Your task to perform on an android device: turn off notifications in google photos Image 0: 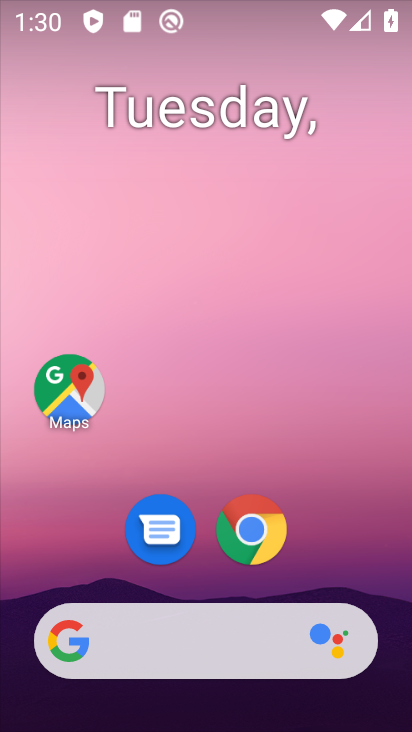
Step 0: drag from (383, 593) to (308, 61)
Your task to perform on an android device: turn off notifications in google photos Image 1: 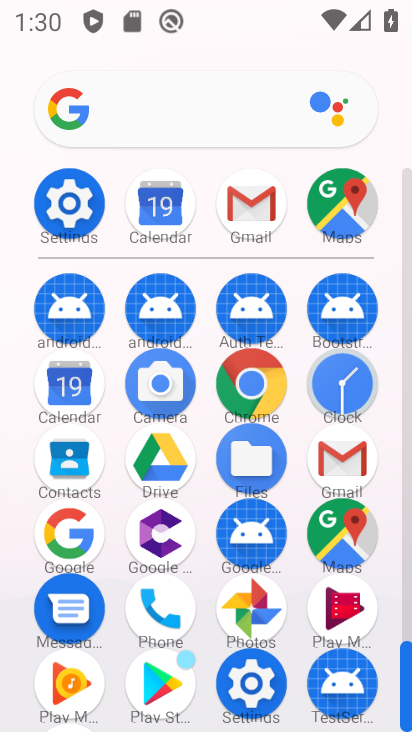
Step 1: click (255, 610)
Your task to perform on an android device: turn off notifications in google photos Image 2: 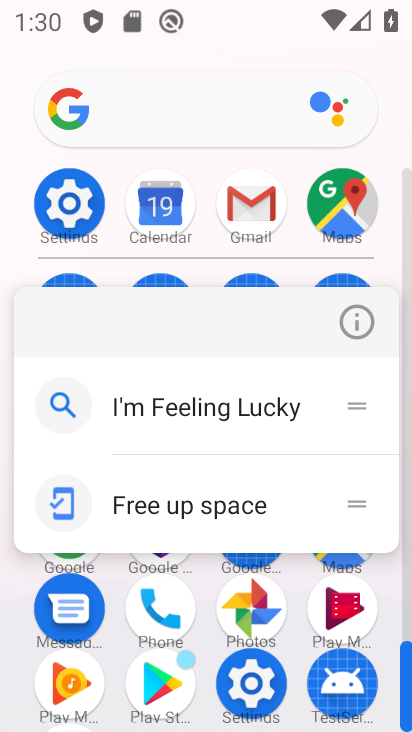
Step 2: click (257, 600)
Your task to perform on an android device: turn off notifications in google photos Image 3: 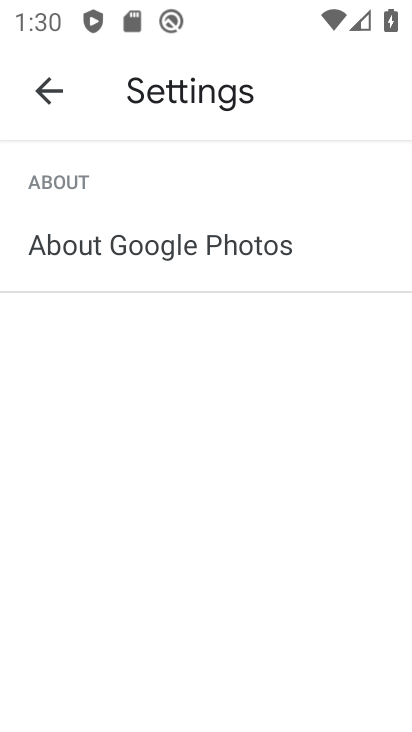
Step 3: click (51, 88)
Your task to perform on an android device: turn off notifications in google photos Image 4: 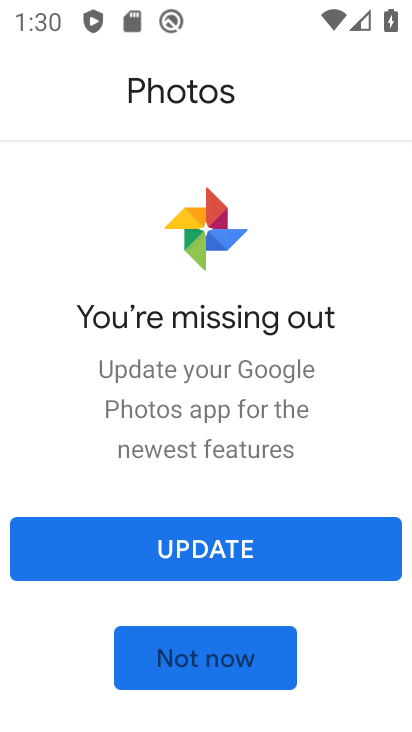
Step 4: click (188, 528)
Your task to perform on an android device: turn off notifications in google photos Image 5: 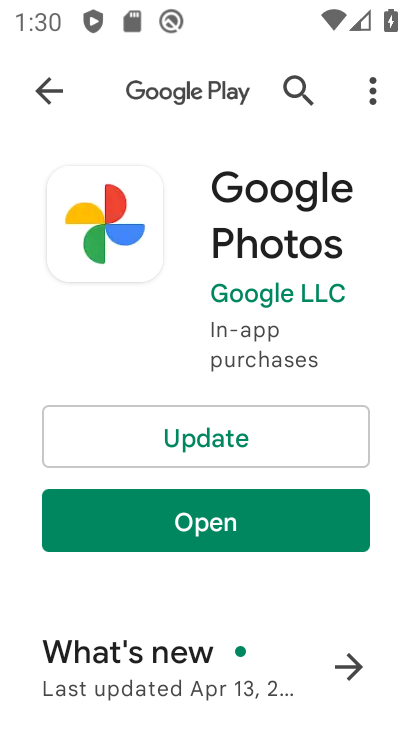
Step 5: click (237, 427)
Your task to perform on an android device: turn off notifications in google photos Image 6: 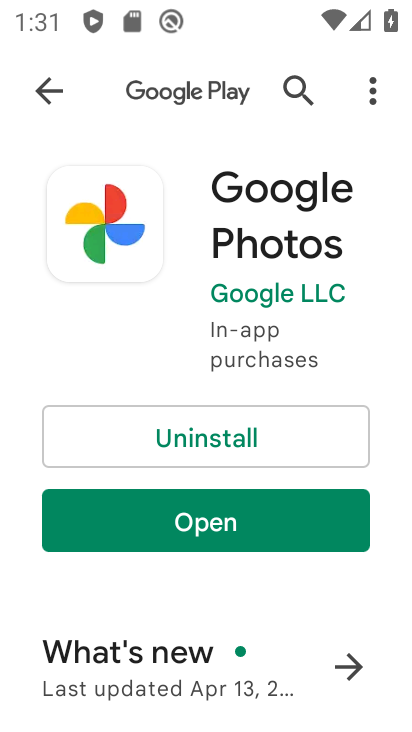
Step 6: click (245, 534)
Your task to perform on an android device: turn off notifications in google photos Image 7: 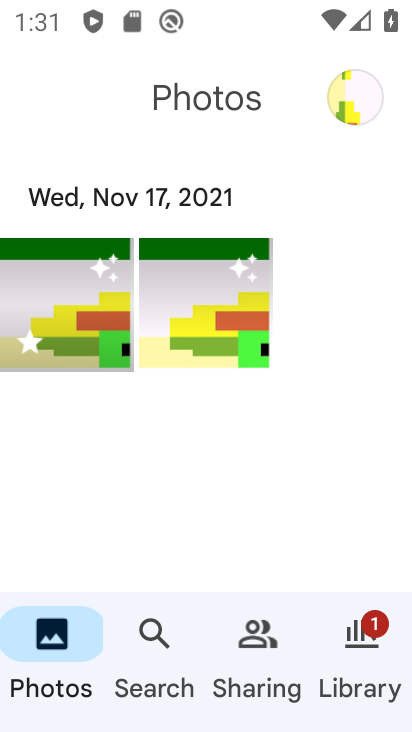
Step 7: click (345, 79)
Your task to perform on an android device: turn off notifications in google photos Image 8: 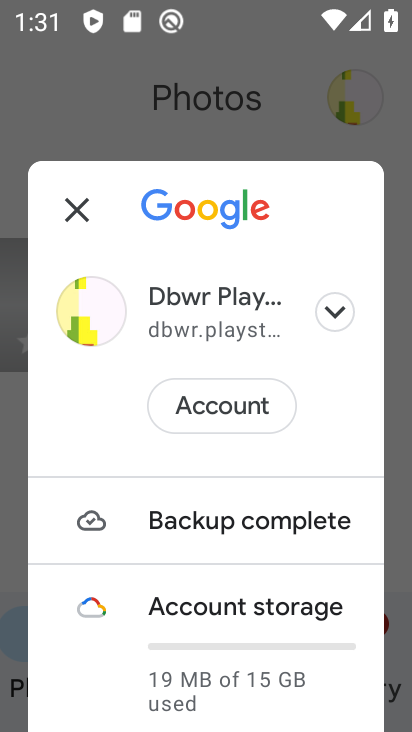
Step 8: drag from (109, 611) to (154, 204)
Your task to perform on an android device: turn off notifications in google photos Image 9: 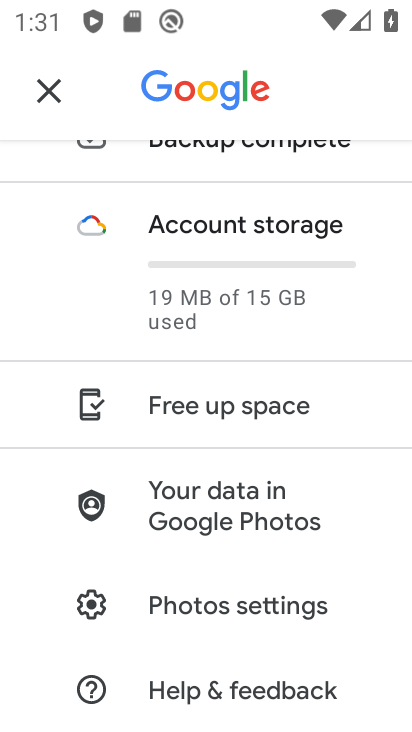
Step 9: drag from (164, 627) to (246, 190)
Your task to perform on an android device: turn off notifications in google photos Image 10: 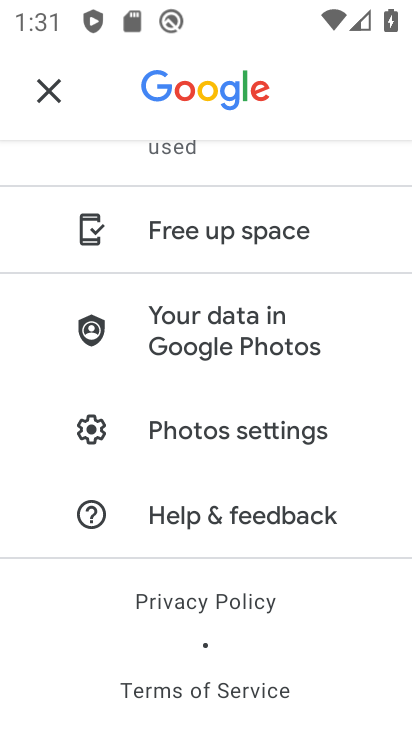
Step 10: click (199, 422)
Your task to perform on an android device: turn off notifications in google photos Image 11: 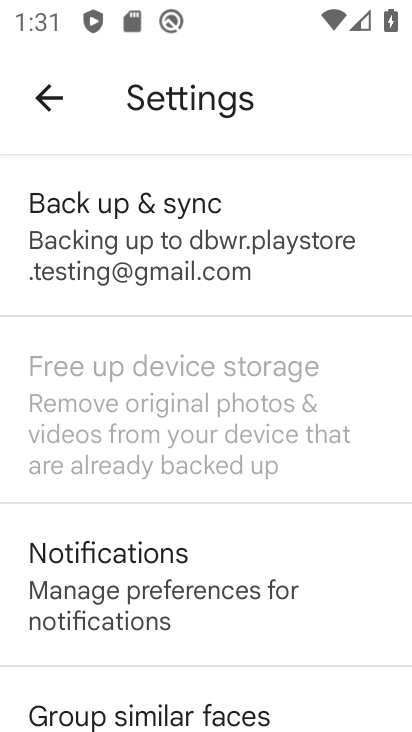
Step 11: click (144, 587)
Your task to perform on an android device: turn off notifications in google photos Image 12: 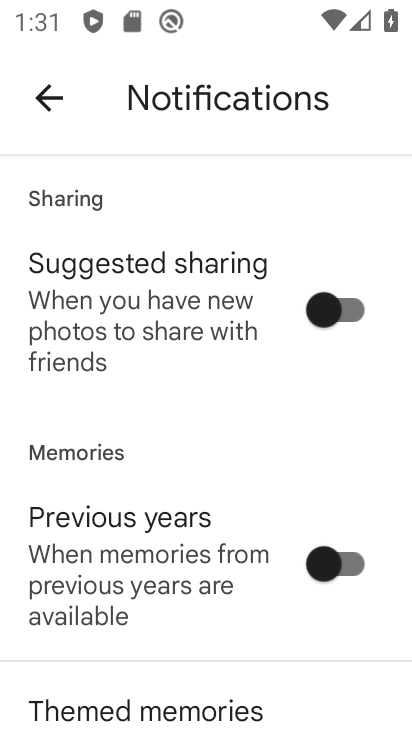
Step 12: task complete